Your task to perform on an android device: Go to CNN.com Image 0: 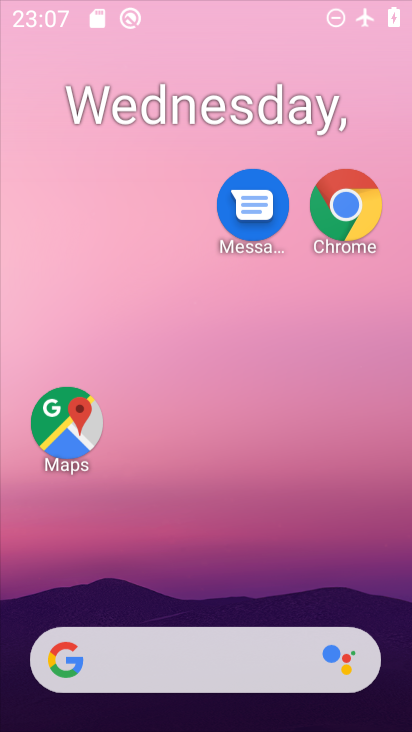
Step 0: click (272, 41)
Your task to perform on an android device: Go to CNN.com Image 1: 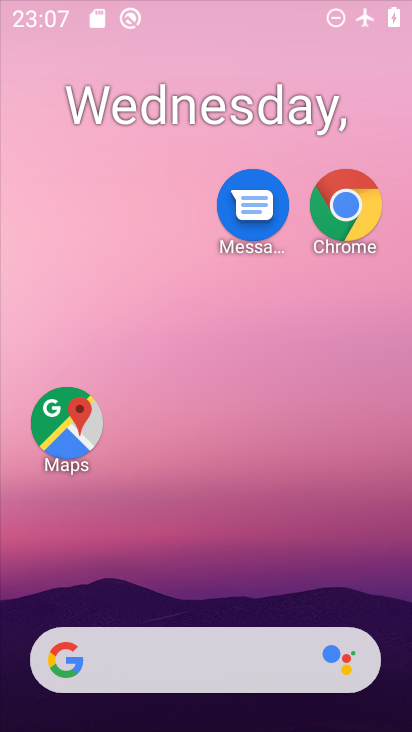
Step 1: drag from (209, 539) to (240, 155)
Your task to perform on an android device: Go to CNN.com Image 2: 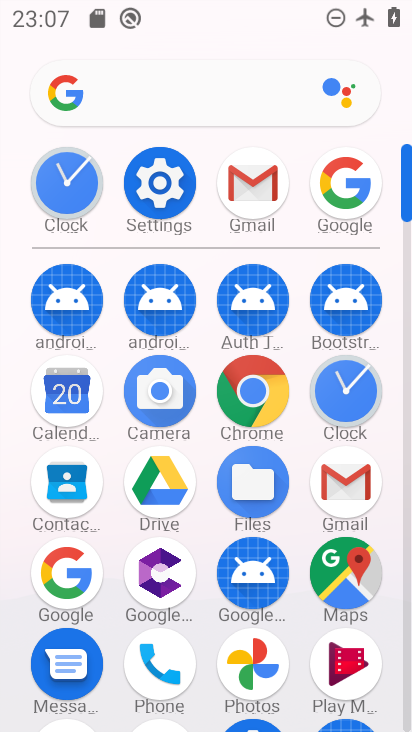
Step 2: click (253, 395)
Your task to perform on an android device: Go to CNN.com Image 3: 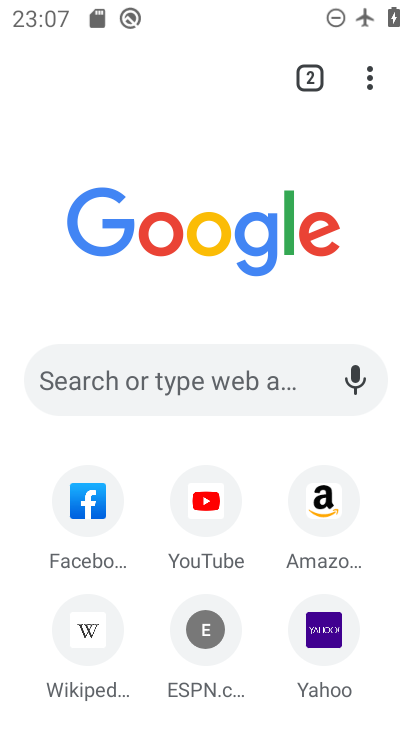
Step 3: click (208, 389)
Your task to perform on an android device: Go to CNN.com Image 4: 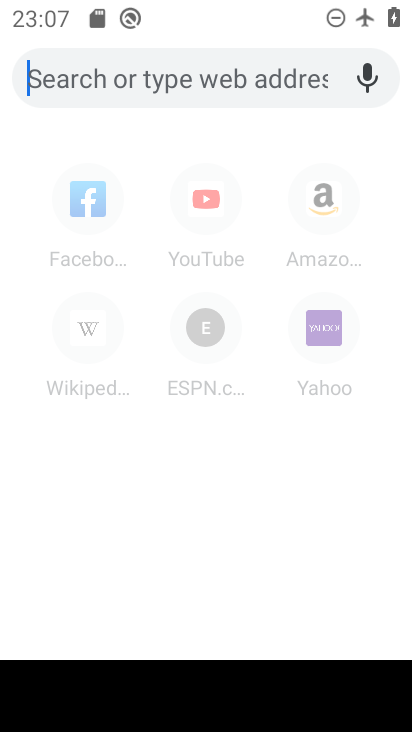
Step 4: type "cnn"
Your task to perform on an android device: Go to CNN.com Image 5: 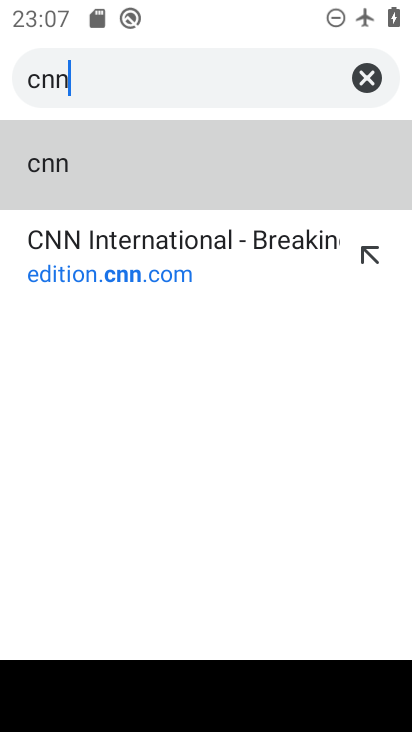
Step 5: click (102, 241)
Your task to perform on an android device: Go to CNN.com Image 6: 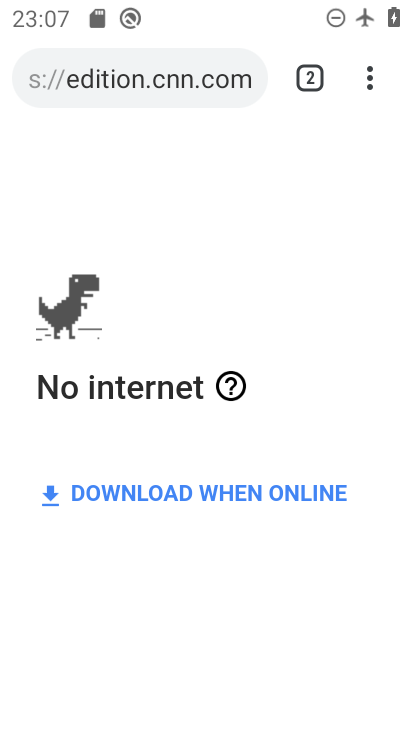
Step 6: task complete